Your task to perform on an android device: Clear the shopping cart on newegg.com. Image 0: 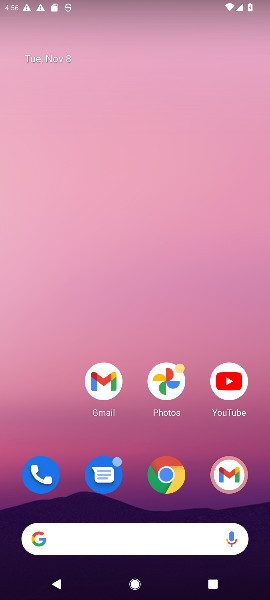
Step 0: drag from (137, 522) to (135, 162)
Your task to perform on an android device: Clear the shopping cart on newegg.com. Image 1: 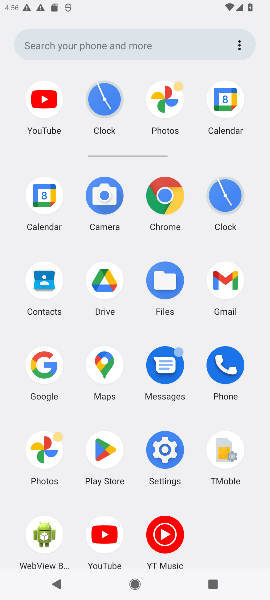
Step 1: click (39, 369)
Your task to perform on an android device: Clear the shopping cart on newegg.com. Image 2: 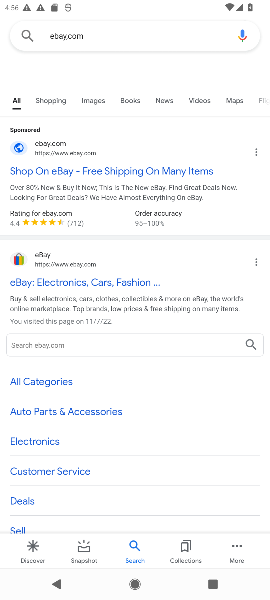
Step 2: click (125, 37)
Your task to perform on an android device: Clear the shopping cart on newegg.com. Image 3: 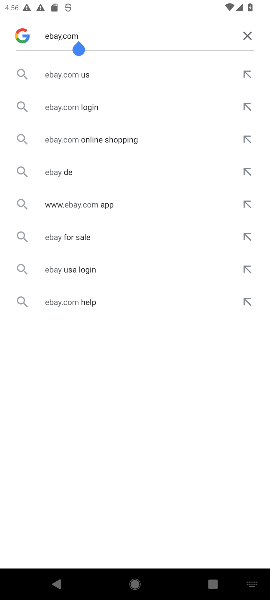
Step 3: click (239, 39)
Your task to perform on an android device: Clear the shopping cart on newegg.com. Image 4: 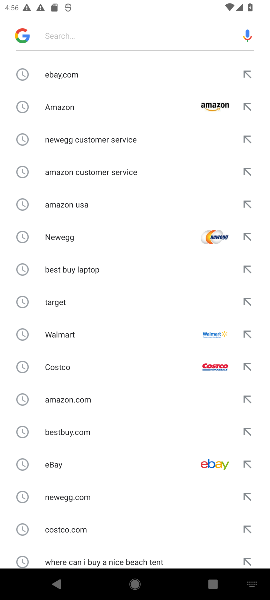
Step 4: click (119, 24)
Your task to perform on an android device: Clear the shopping cart on newegg.com. Image 5: 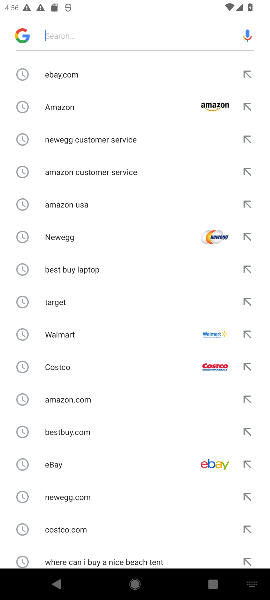
Step 5: type "newegg "
Your task to perform on an android device: Clear the shopping cart on newegg.com. Image 6: 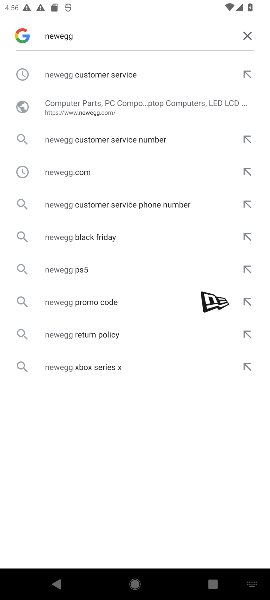
Step 6: click (84, 73)
Your task to perform on an android device: Clear the shopping cart on newegg.com. Image 7: 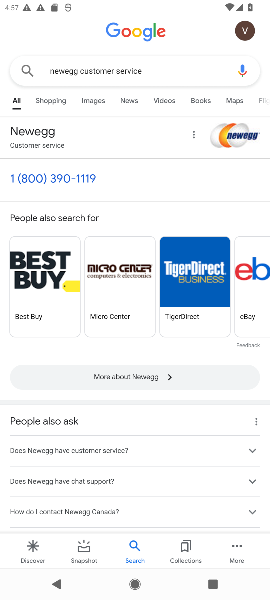
Step 7: drag from (131, 443) to (127, 140)
Your task to perform on an android device: Clear the shopping cart on newegg.com. Image 8: 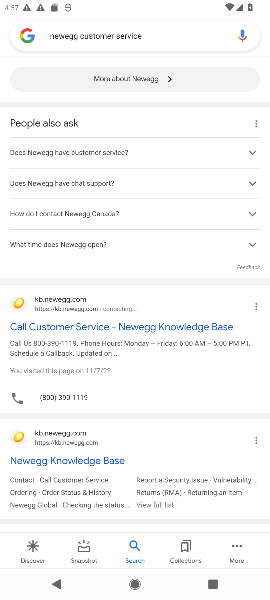
Step 8: click (19, 299)
Your task to perform on an android device: Clear the shopping cart on newegg.com. Image 9: 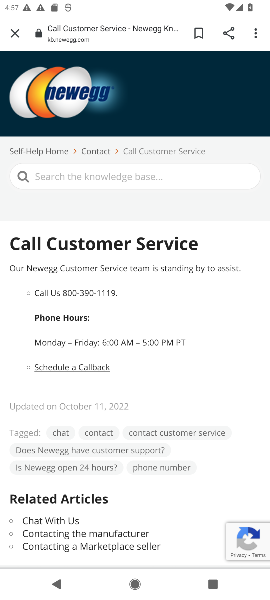
Step 9: click (114, 176)
Your task to perform on an android device: Clear the shopping cart on newegg.com. Image 10: 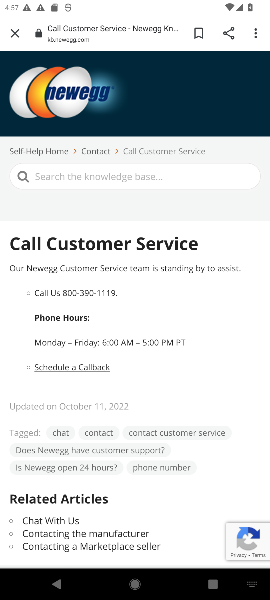
Step 10: press back button
Your task to perform on an android device: Clear the shopping cart on newegg.com. Image 11: 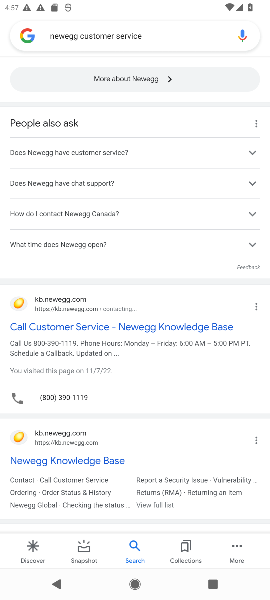
Step 11: drag from (110, 215) to (94, 504)
Your task to perform on an android device: Clear the shopping cart on newegg.com. Image 12: 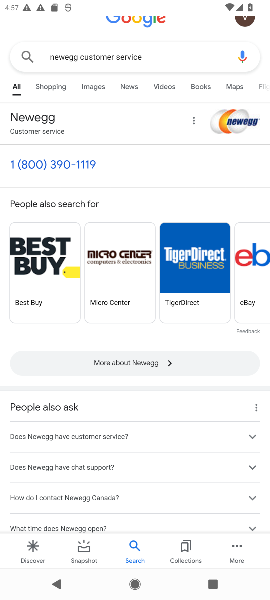
Step 12: drag from (79, 149) to (78, 394)
Your task to perform on an android device: Clear the shopping cart on newegg.com. Image 13: 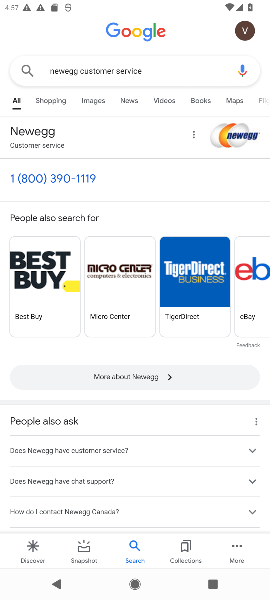
Step 13: press back button
Your task to perform on an android device: Clear the shopping cart on newegg.com. Image 14: 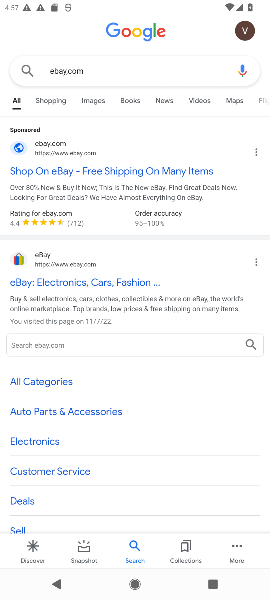
Step 14: click (121, 69)
Your task to perform on an android device: Clear the shopping cart on newegg.com. Image 15: 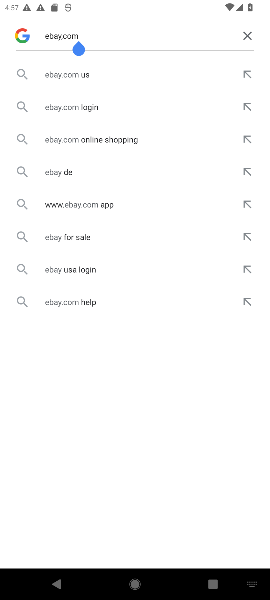
Step 15: click (246, 38)
Your task to perform on an android device: Clear the shopping cart on newegg.com. Image 16: 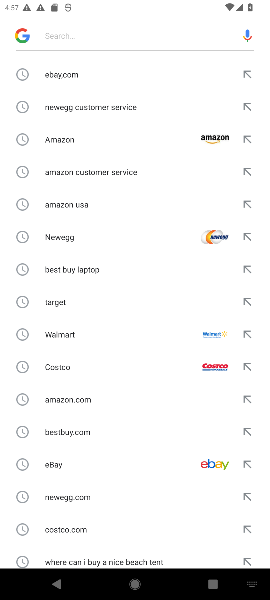
Step 16: click (138, 30)
Your task to perform on an android device: Clear the shopping cart on newegg.com. Image 17: 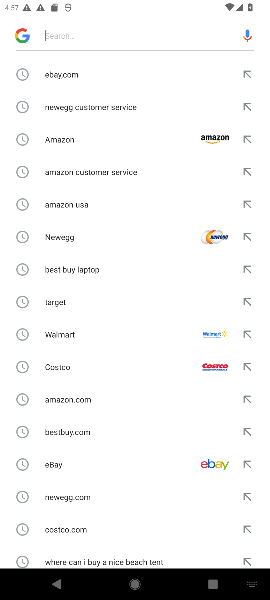
Step 17: type "newegg "
Your task to perform on an android device: Clear the shopping cart on newegg.com. Image 18: 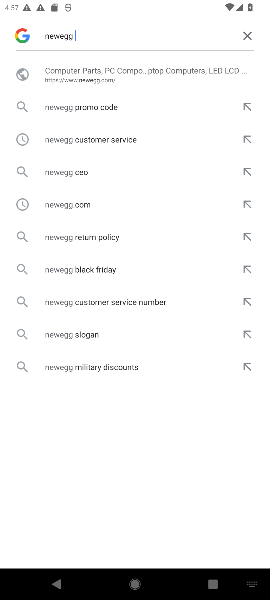
Step 18: click (115, 75)
Your task to perform on an android device: Clear the shopping cart on newegg.com. Image 19: 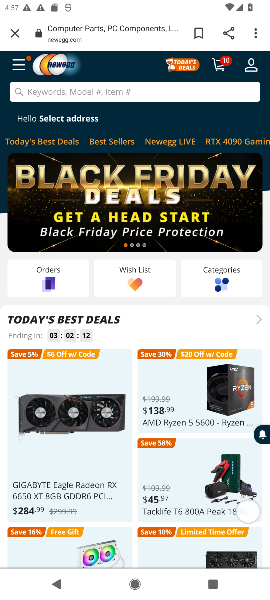
Step 19: click (220, 58)
Your task to perform on an android device: Clear the shopping cart on newegg.com. Image 20: 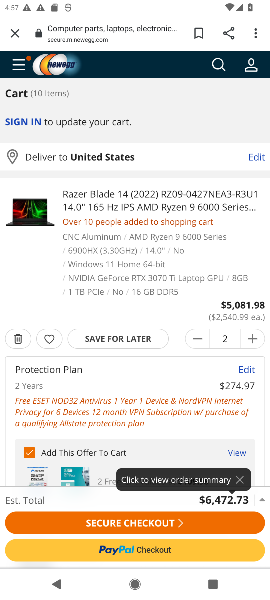
Step 20: click (15, 334)
Your task to perform on an android device: Clear the shopping cart on newegg.com. Image 21: 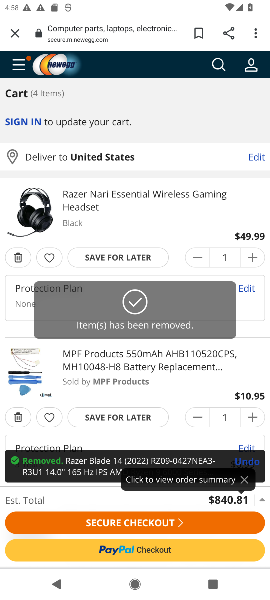
Step 21: click (13, 255)
Your task to perform on an android device: Clear the shopping cart on newegg.com. Image 22: 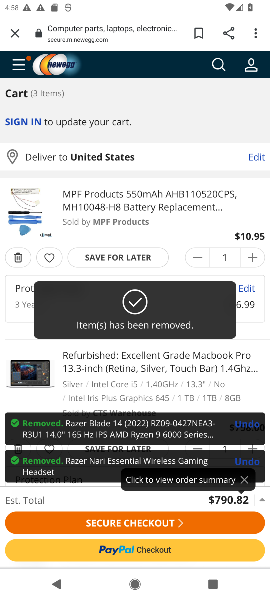
Step 22: click (13, 255)
Your task to perform on an android device: Clear the shopping cart on newegg.com. Image 23: 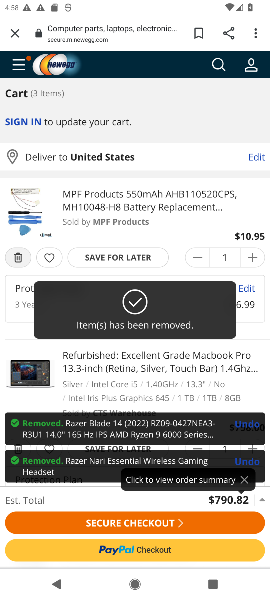
Step 23: click (13, 255)
Your task to perform on an android device: Clear the shopping cart on newegg.com. Image 24: 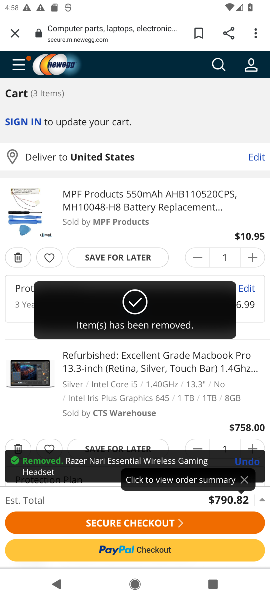
Step 24: click (13, 255)
Your task to perform on an android device: Clear the shopping cart on newegg.com. Image 25: 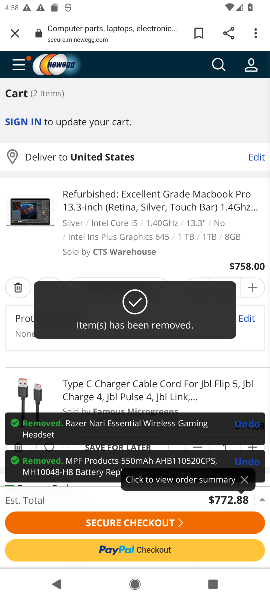
Step 25: click (13, 255)
Your task to perform on an android device: Clear the shopping cart on newegg.com. Image 26: 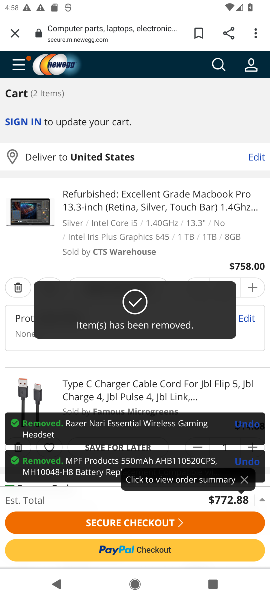
Step 26: click (13, 255)
Your task to perform on an android device: Clear the shopping cart on newegg.com. Image 27: 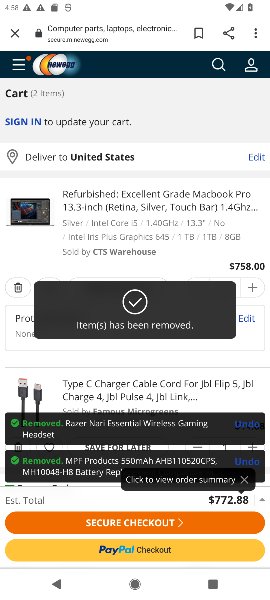
Step 27: click (18, 286)
Your task to perform on an android device: Clear the shopping cart on newegg.com. Image 28: 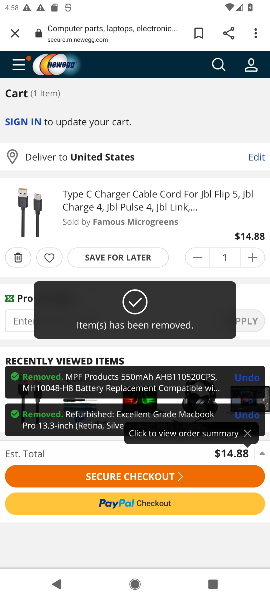
Step 28: click (15, 256)
Your task to perform on an android device: Clear the shopping cart on newegg.com. Image 29: 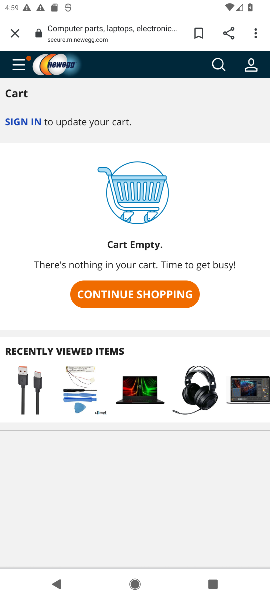
Step 29: task complete